Your task to perform on an android device: Open internet settings Image 0: 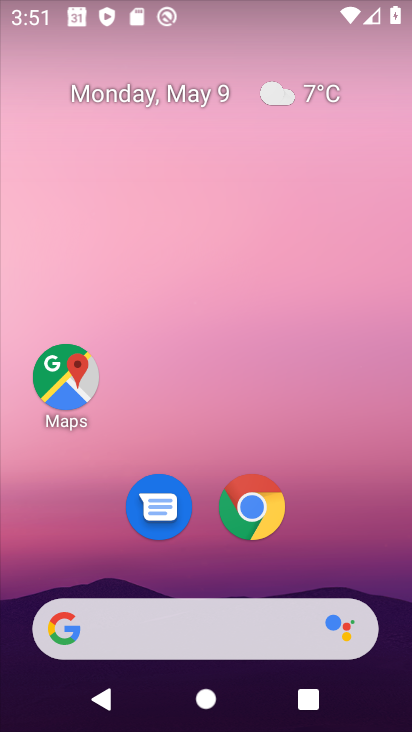
Step 0: drag from (252, 632) to (122, 242)
Your task to perform on an android device: Open internet settings Image 1: 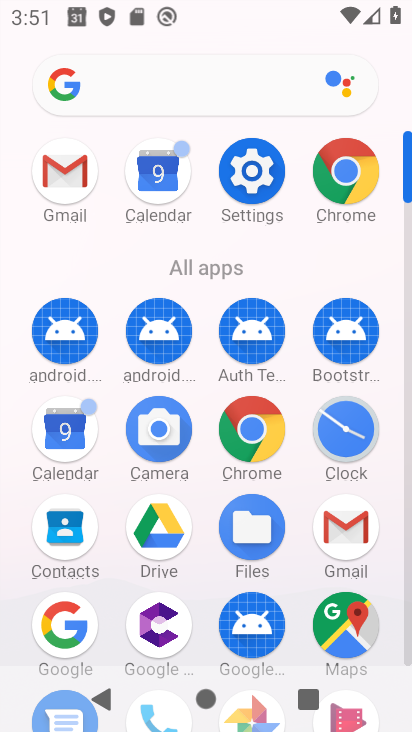
Step 1: click (250, 187)
Your task to perform on an android device: Open internet settings Image 2: 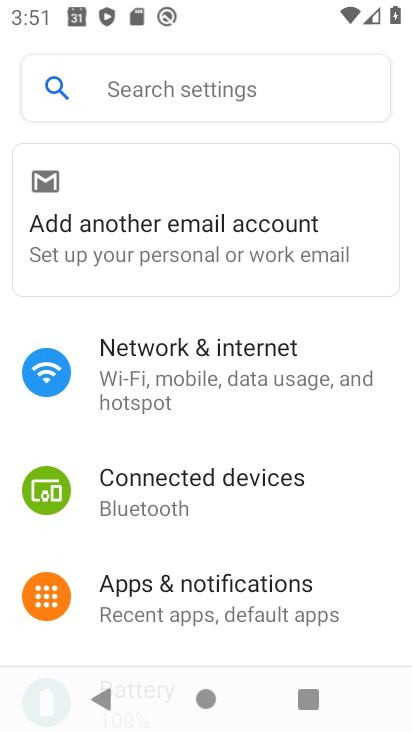
Step 2: click (267, 355)
Your task to perform on an android device: Open internet settings Image 3: 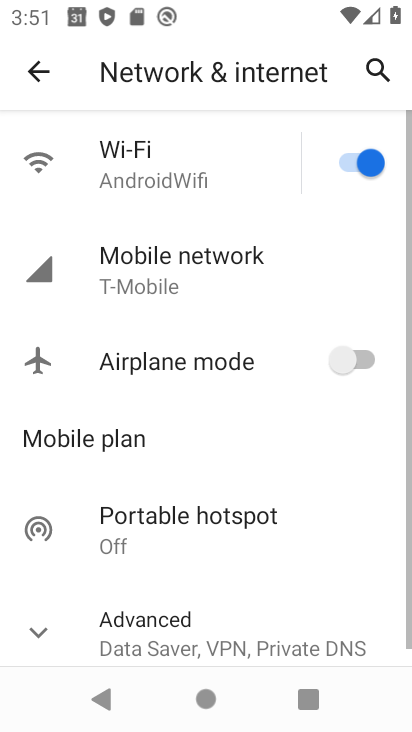
Step 3: task complete